Your task to perform on an android device: Find coffee shops on Maps Image 0: 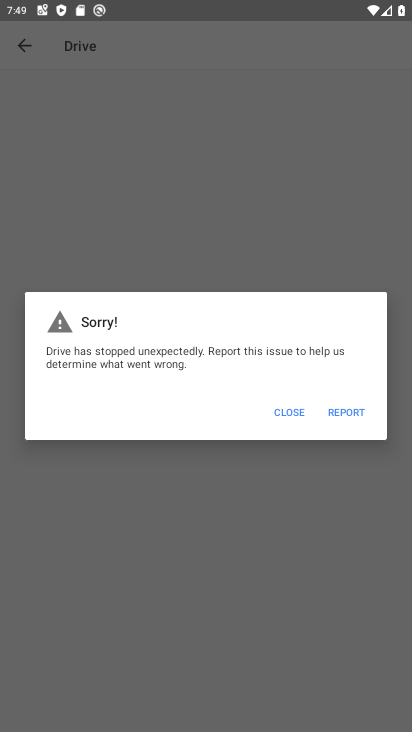
Step 0: click (286, 417)
Your task to perform on an android device: Find coffee shops on Maps Image 1: 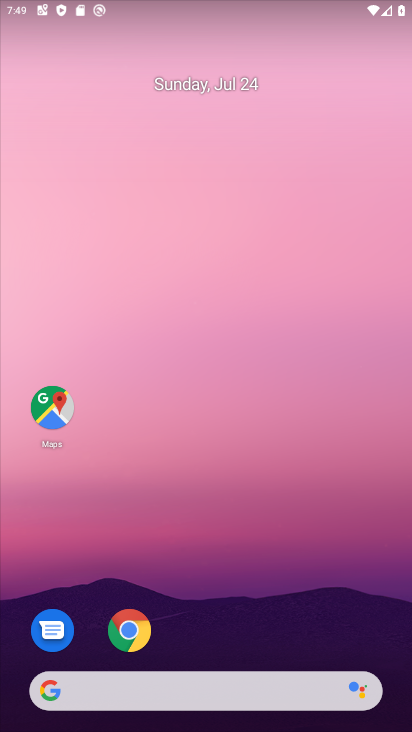
Step 1: click (71, 423)
Your task to perform on an android device: Find coffee shops on Maps Image 2: 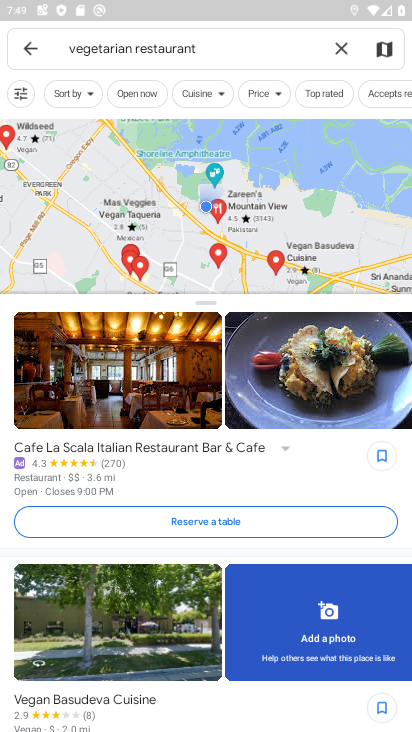
Step 2: task complete